Your task to perform on an android device: turn off javascript in the chrome app Image 0: 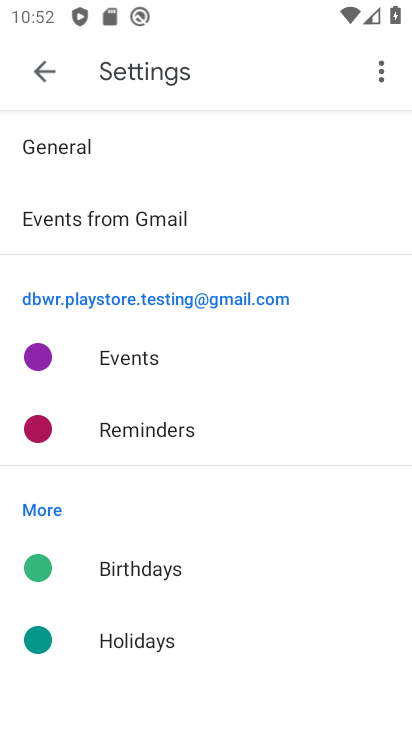
Step 0: press home button
Your task to perform on an android device: turn off javascript in the chrome app Image 1: 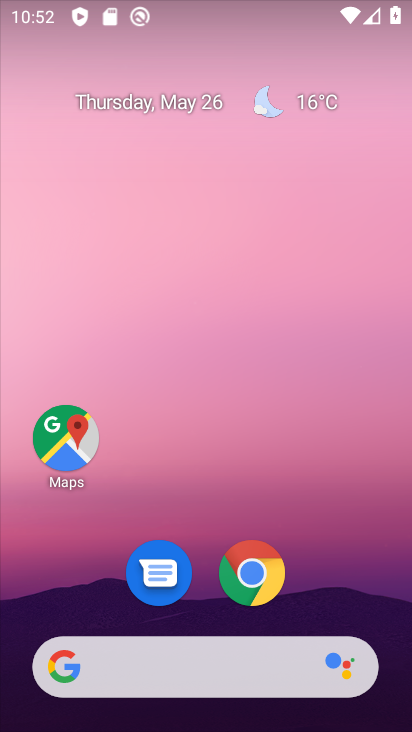
Step 1: click (250, 593)
Your task to perform on an android device: turn off javascript in the chrome app Image 2: 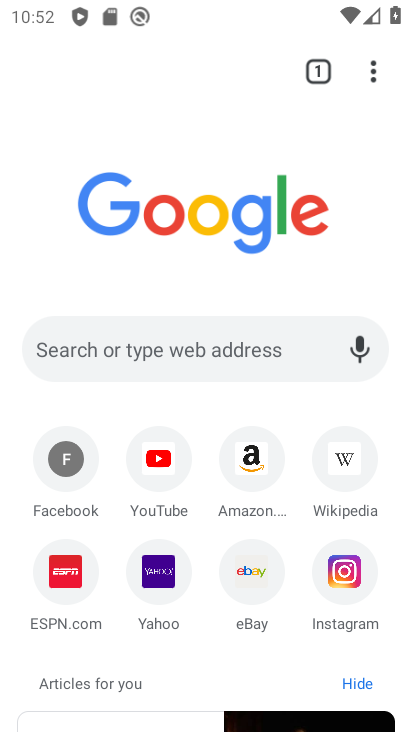
Step 2: click (378, 91)
Your task to perform on an android device: turn off javascript in the chrome app Image 3: 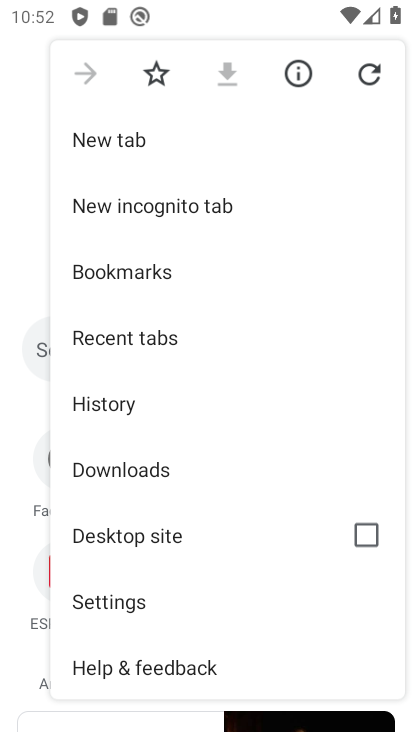
Step 3: click (172, 609)
Your task to perform on an android device: turn off javascript in the chrome app Image 4: 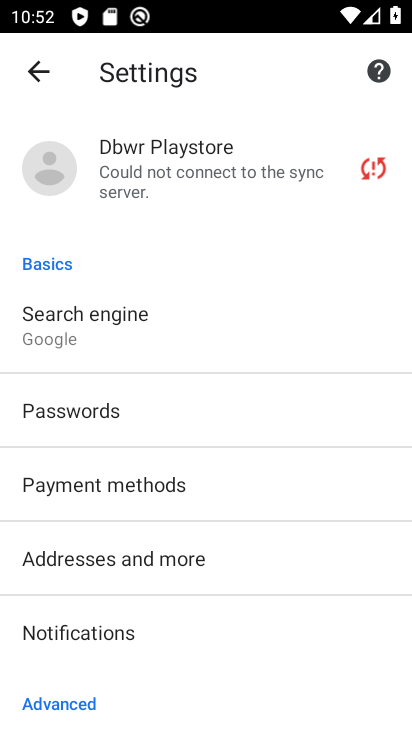
Step 4: drag from (199, 624) to (189, 520)
Your task to perform on an android device: turn off javascript in the chrome app Image 5: 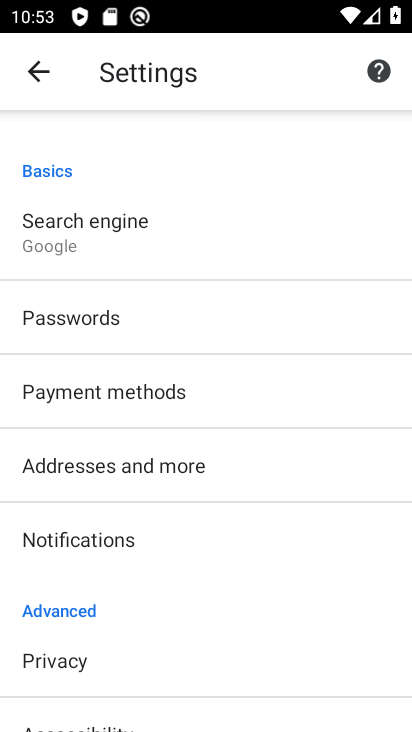
Step 5: drag from (183, 653) to (171, 503)
Your task to perform on an android device: turn off javascript in the chrome app Image 6: 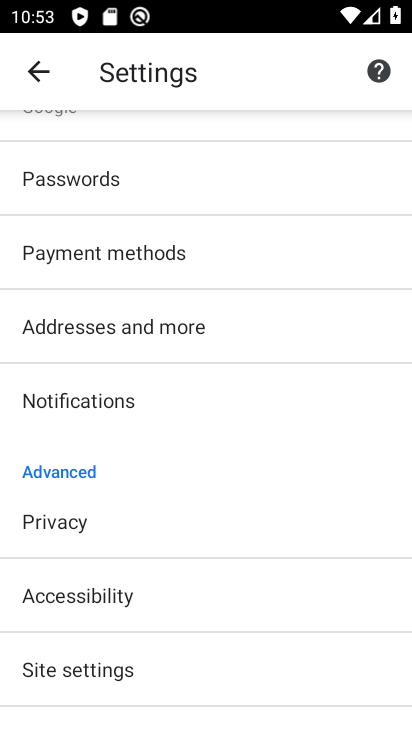
Step 6: click (196, 652)
Your task to perform on an android device: turn off javascript in the chrome app Image 7: 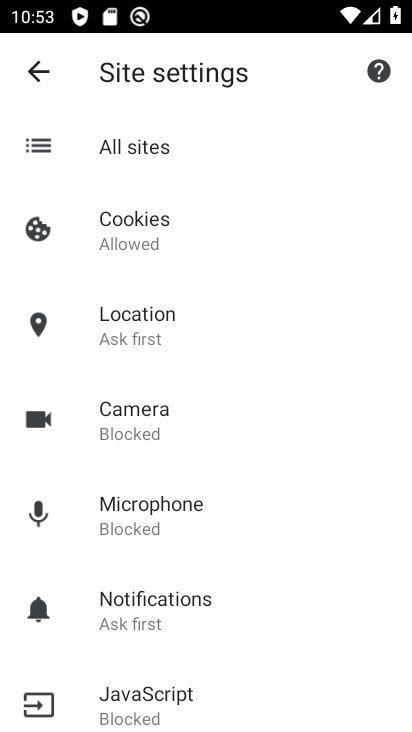
Step 7: click (199, 688)
Your task to perform on an android device: turn off javascript in the chrome app Image 8: 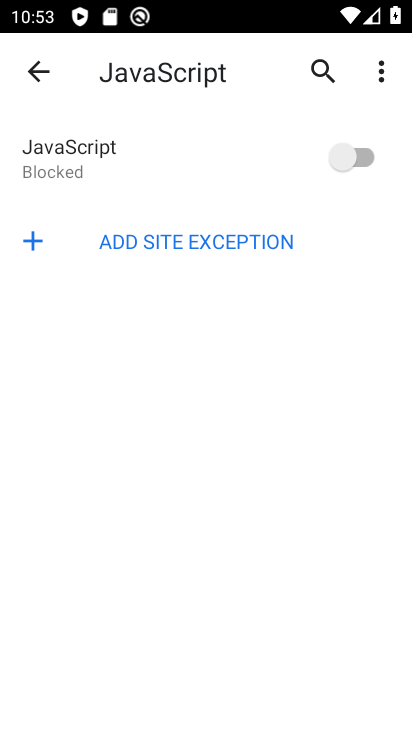
Step 8: task complete